Your task to perform on an android device: change the clock display to show seconds Image 0: 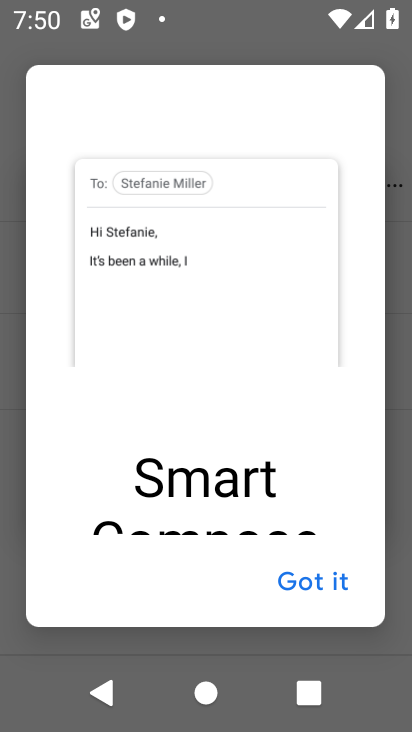
Step 0: press home button
Your task to perform on an android device: change the clock display to show seconds Image 1: 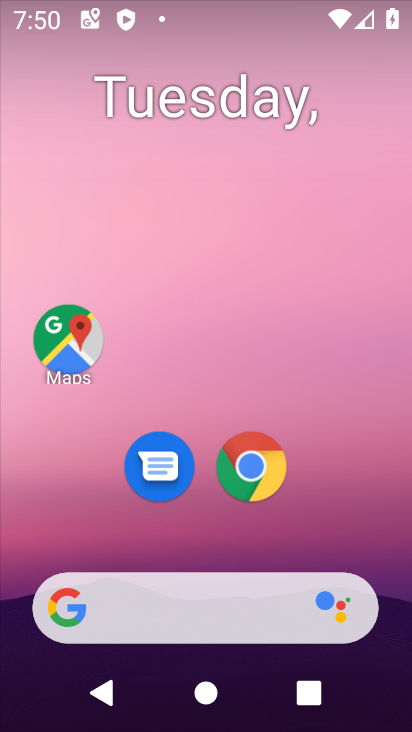
Step 1: drag from (208, 544) to (213, 40)
Your task to perform on an android device: change the clock display to show seconds Image 2: 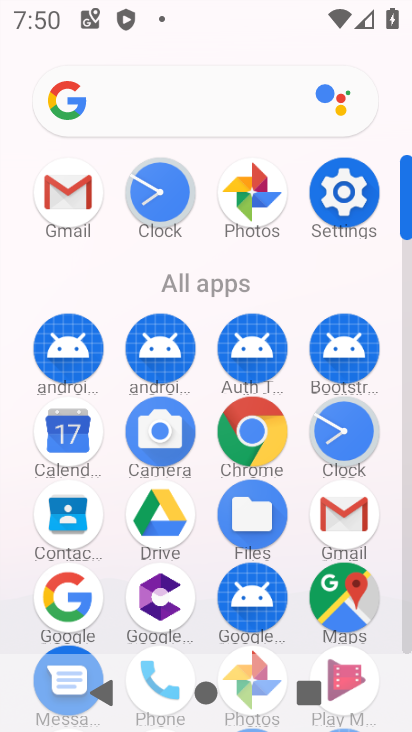
Step 2: click (342, 427)
Your task to perform on an android device: change the clock display to show seconds Image 3: 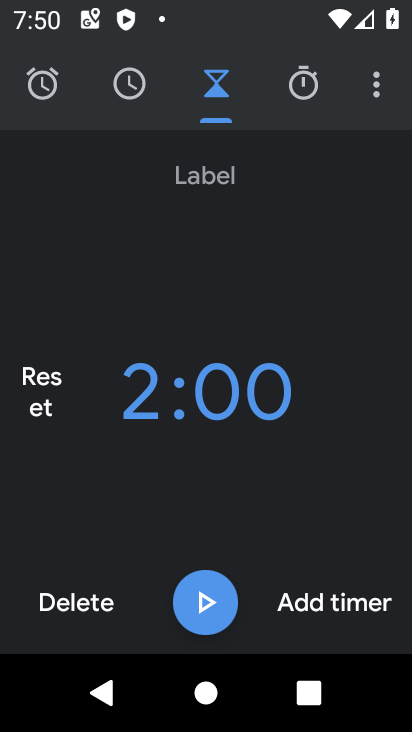
Step 3: click (371, 87)
Your task to perform on an android device: change the clock display to show seconds Image 4: 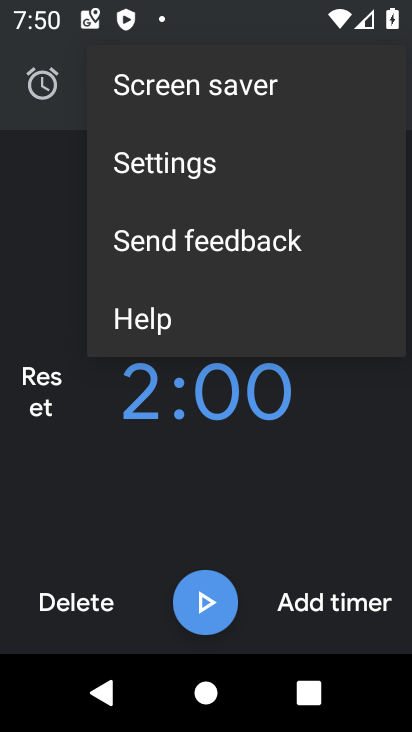
Step 4: click (217, 166)
Your task to perform on an android device: change the clock display to show seconds Image 5: 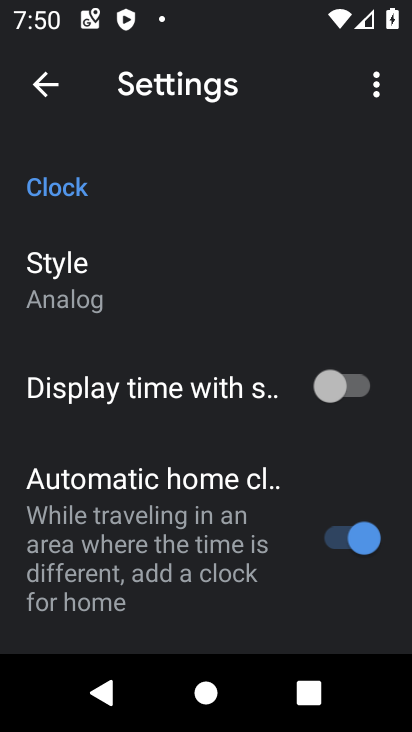
Step 5: click (334, 378)
Your task to perform on an android device: change the clock display to show seconds Image 6: 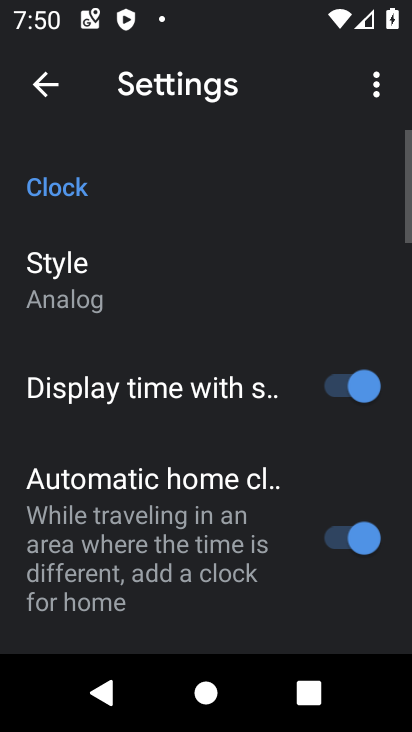
Step 6: task complete